Your task to perform on an android device: stop showing notifications on the lock screen Image 0: 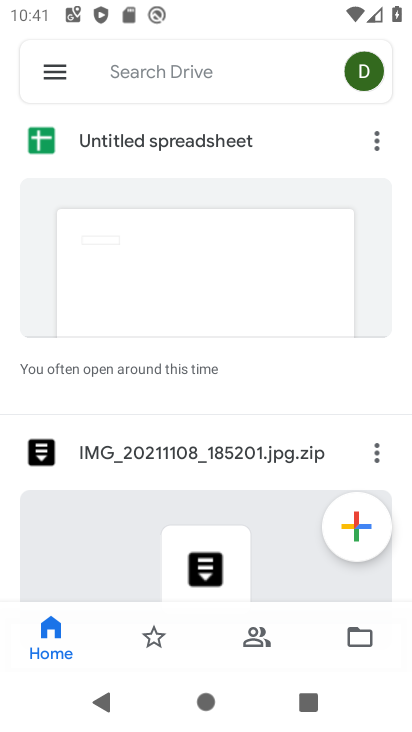
Step 0: press home button
Your task to perform on an android device: stop showing notifications on the lock screen Image 1: 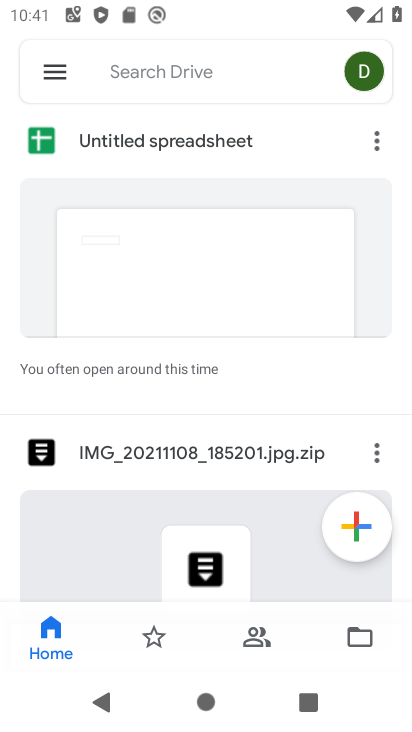
Step 1: press home button
Your task to perform on an android device: stop showing notifications on the lock screen Image 2: 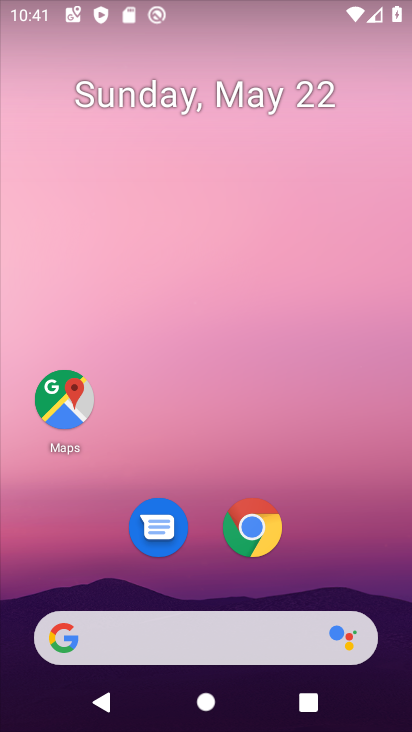
Step 2: drag from (320, 588) to (338, 121)
Your task to perform on an android device: stop showing notifications on the lock screen Image 3: 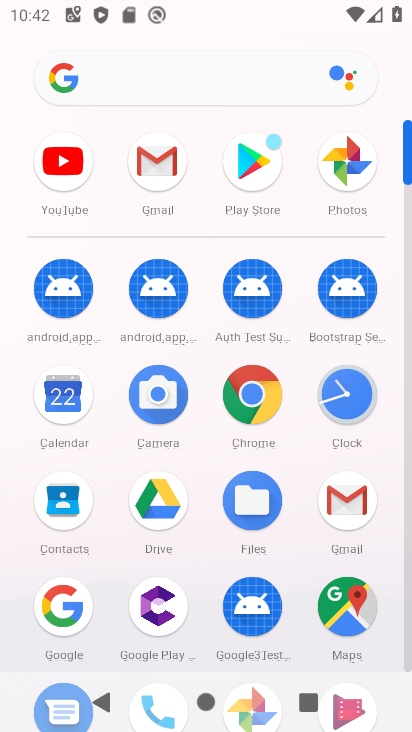
Step 3: click (407, 340)
Your task to perform on an android device: stop showing notifications on the lock screen Image 4: 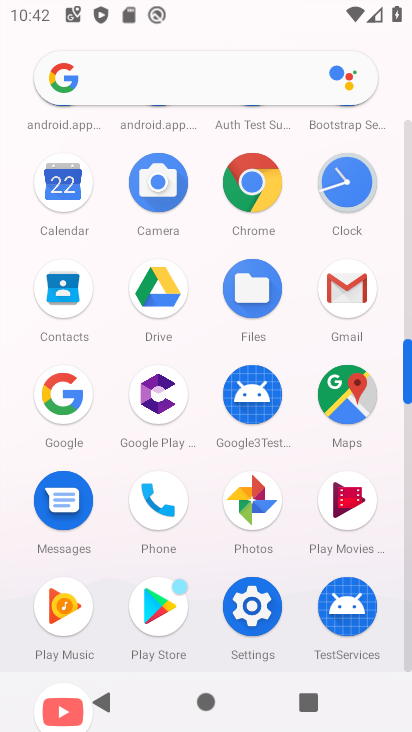
Step 4: click (407, 340)
Your task to perform on an android device: stop showing notifications on the lock screen Image 5: 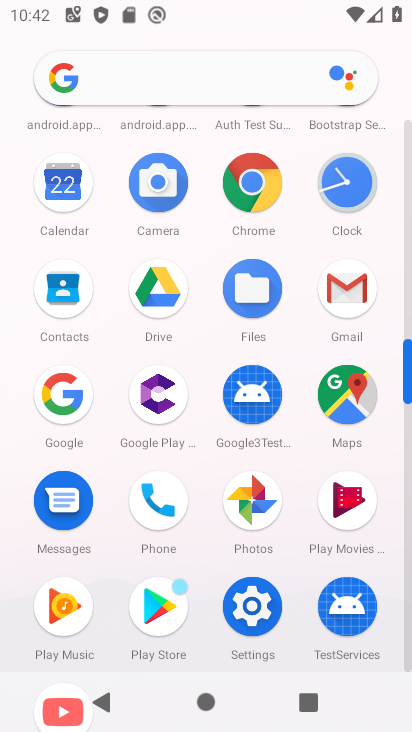
Step 5: click (251, 602)
Your task to perform on an android device: stop showing notifications on the lock screen Image 6: 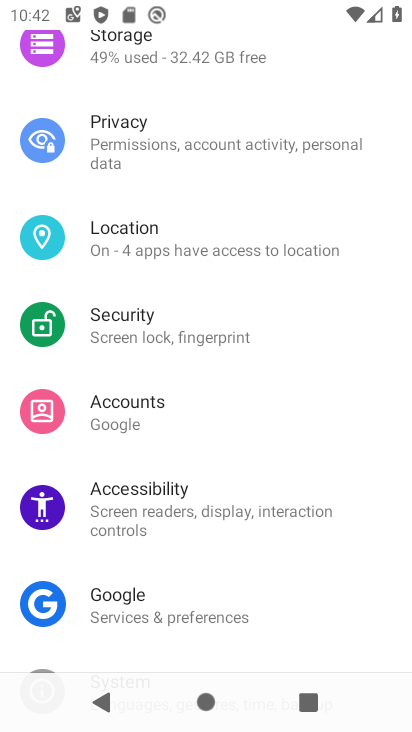
Step 6: drag from (243, 145) to (242, 715)
Your task to perform on an android device: stop showing notifications on the lock screen Image 7: 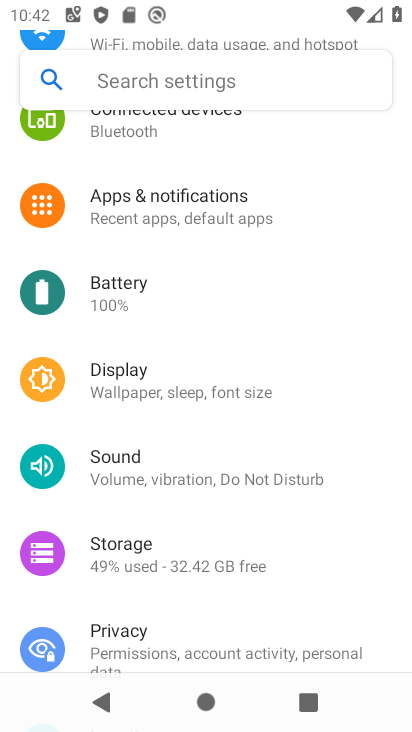
Step 7: click (269, 236)
Your task to perform on an android device: stop showing notifications on the lock screen Image 8: 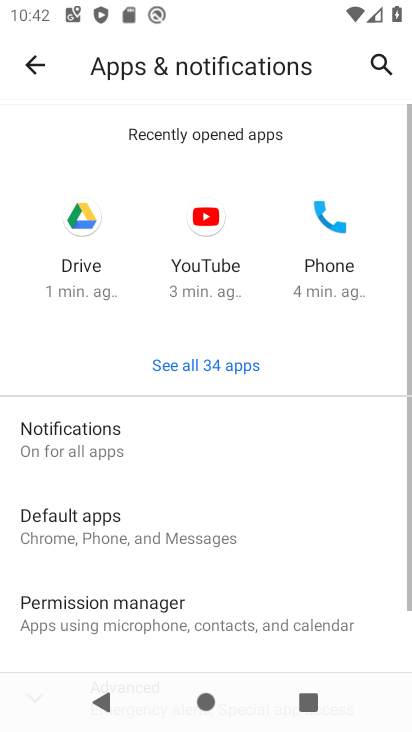
Step 8: drag from (347, 522) to (347, 161)
Your task to perform on an android device: stop showing notifications on the lock screen Image 9: 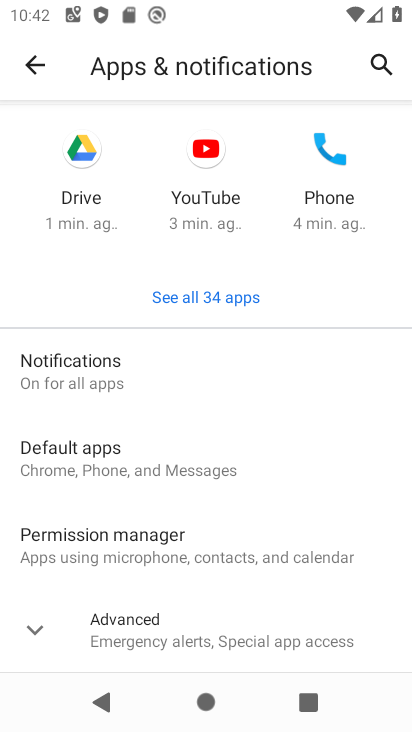
Step 9: click (178, 389)
Your task to perform on an android device: stop showing notifications on the lock screen Image 10: 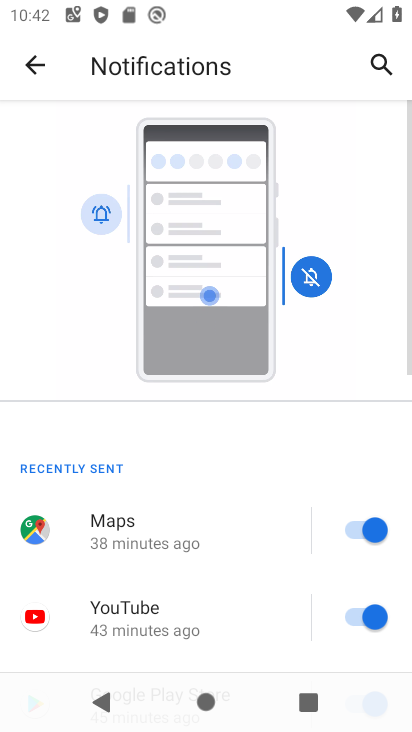
Step 10: drag from (196, 575) to (303, 39)
Your task to perform on an android device: stop showing notifications on the lock screen Image 11: 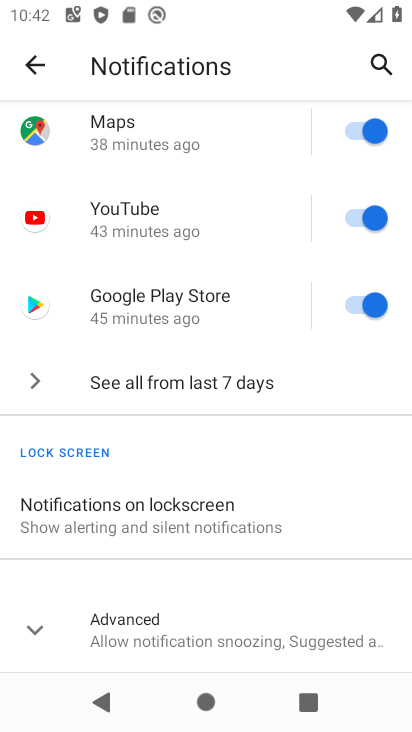
Step 11: click (214, 614)
Your task to perform on an android device: stop showing notifications on the lock screen Image 12: 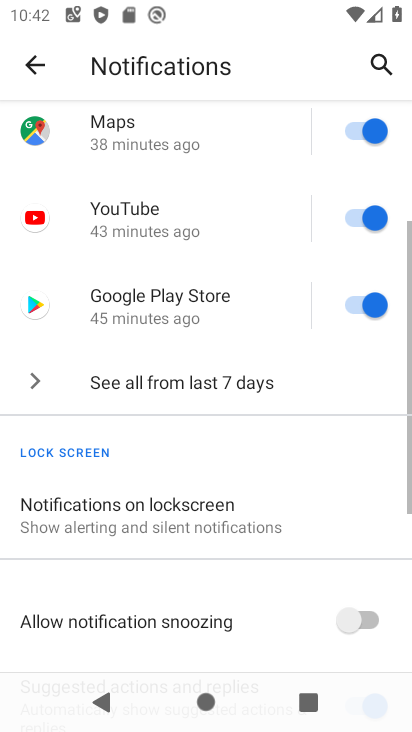
Step 12: drag from (235, 591) to (286, 245)
Your task to perform on an android device: stop showing notifications on the lock screen Image 13: 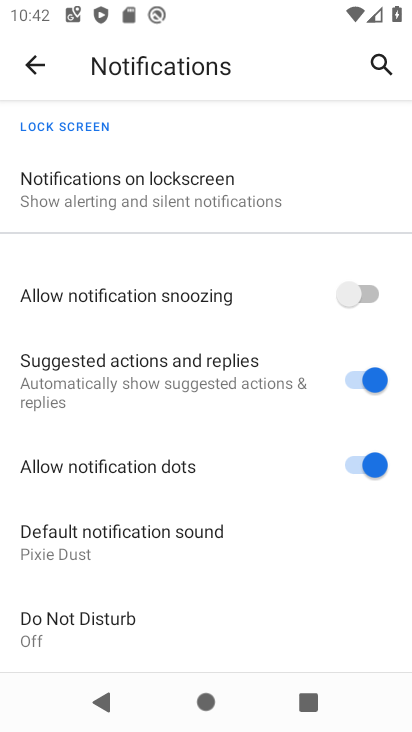
Step 13: click (236, 170)
Your task to perform on an android device: stop showing notifications on the lock screen Image 14: 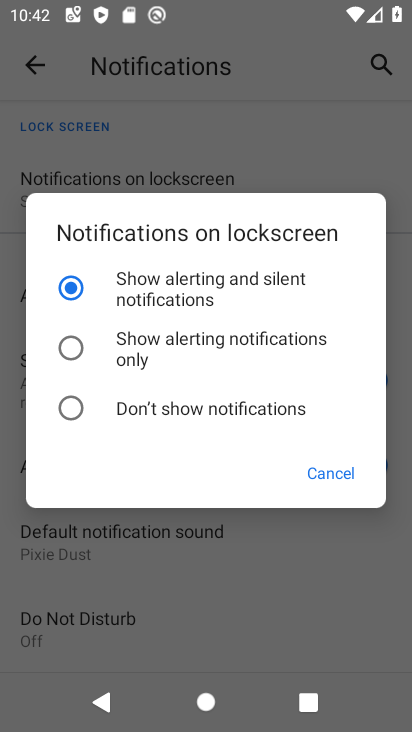
Step 14: click (172, 392)
Your task to perform on an android device: stop showing notifications on the lock screen Image 15: 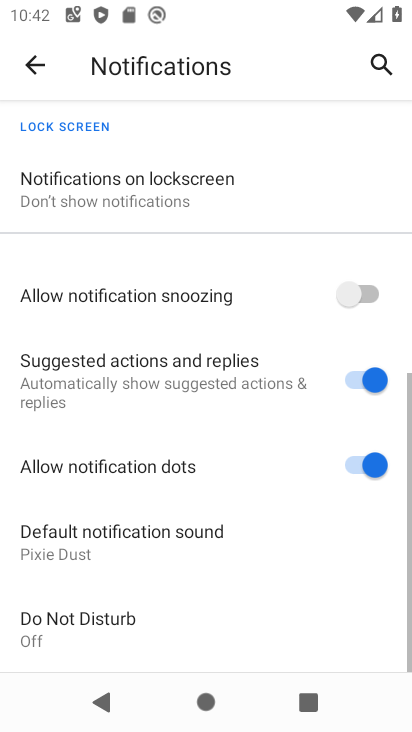
Step 15: task complete